Your task to perform on an android device: Go to settings Image 0: 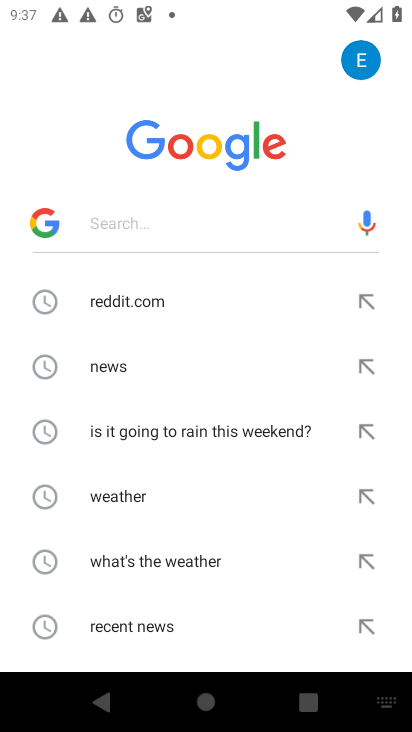
Step 0: press back button
Your task to perform on an android device: Go to settings Image 1: 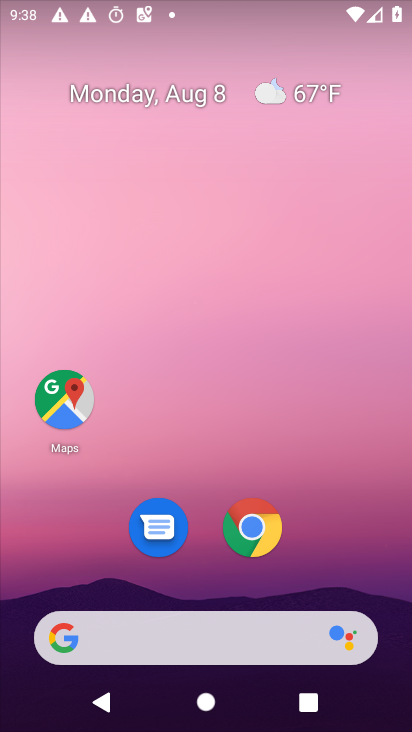
Step 1: drag from (389, 693) to (344, 84)
Your task to perform on an android device: Go to settings Image 2: 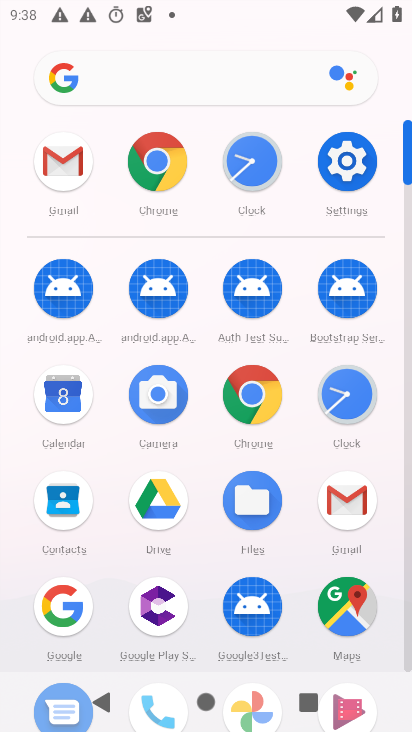
Step 2: click (343, 158)
Your task to perform on an android device: Go to settings Image 3: 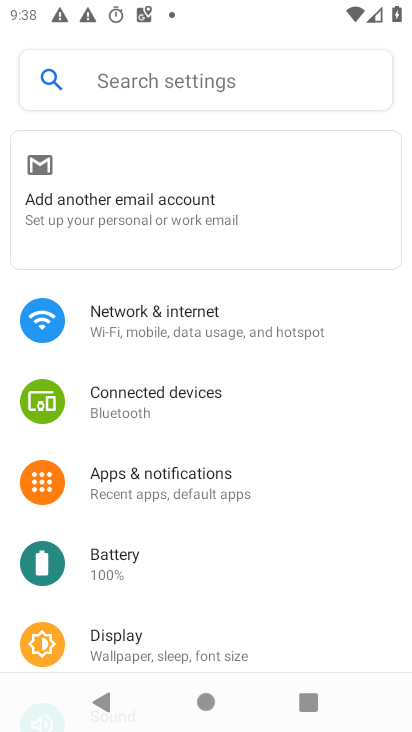
Step 3: task complete